Your task to perform on an android device: snooze an email in the gmail app Image 0: 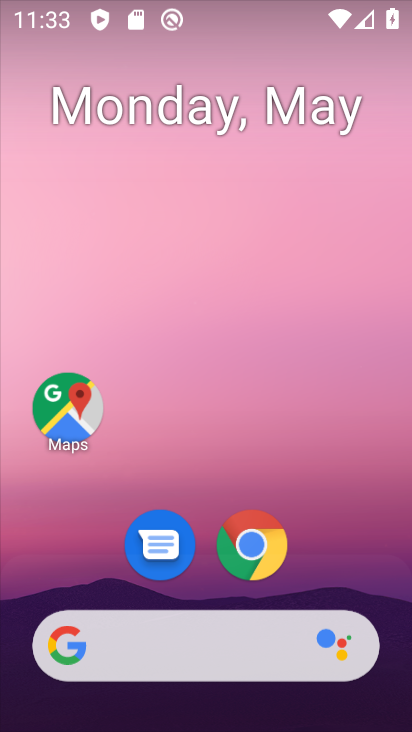
Step 0: drag from (200, 590) to (288, 191)
Your task to perform on an android device: snooze an email in the gmail app Image 1: 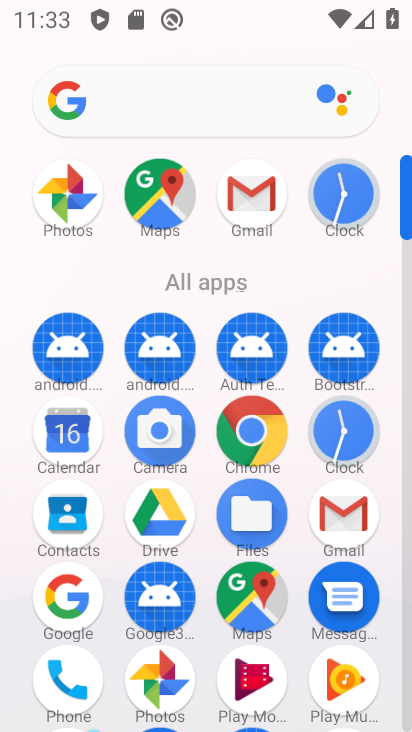
Step 1: click (276, 211)
Your task to perform on an android device: snooze an email in the gmail app Image 2: 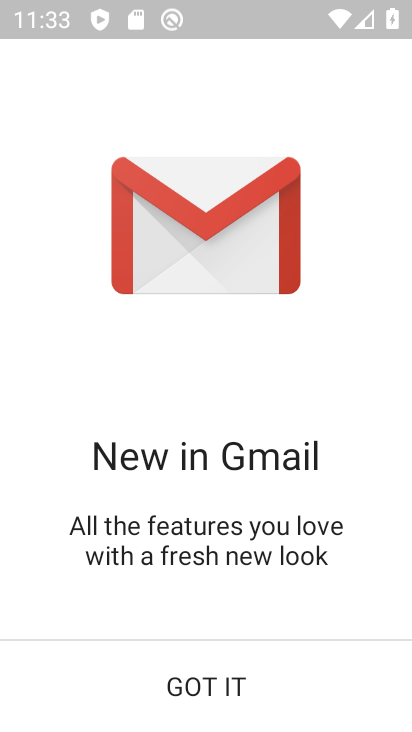
Step 2: click (269, 201)
Your task to perform on an android device: snooze an email in the gmail app Image 3: 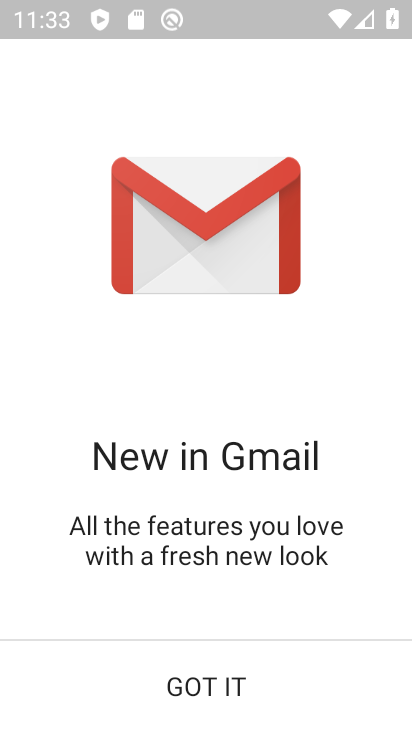
Step 3: click (209, 682)
Your task to perform on an android device: snooze an email in the gmail app Image 4: 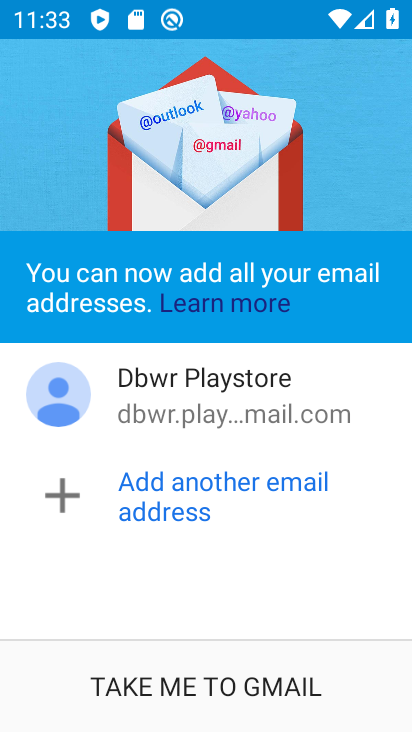
Step 4: click (209, 682)
Your task to perform on an android device: snooze an email in the gmail app Image 5: 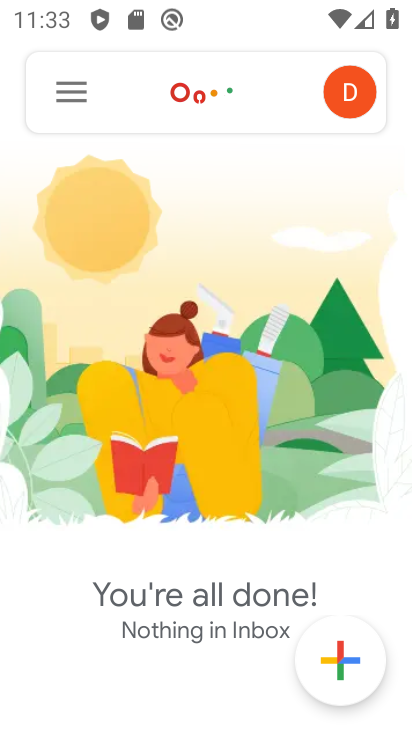
Step 5: click (76, 91)
Your task to perform on an android device: snooze an email in the gmail app Image 6: 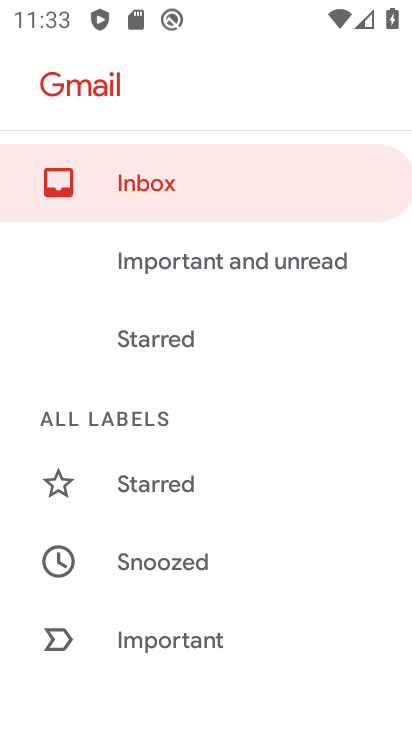
Step 6: click (160, 580)
Your task to perform on an android device: snooze an email in the gmail app Image 7: 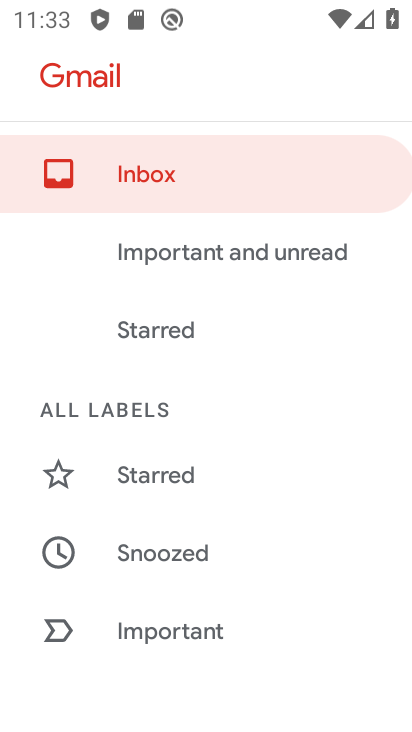
Step 7: click (167, 555)
Your task to perform on an android device: snooze an email in the gmail app Image 8: 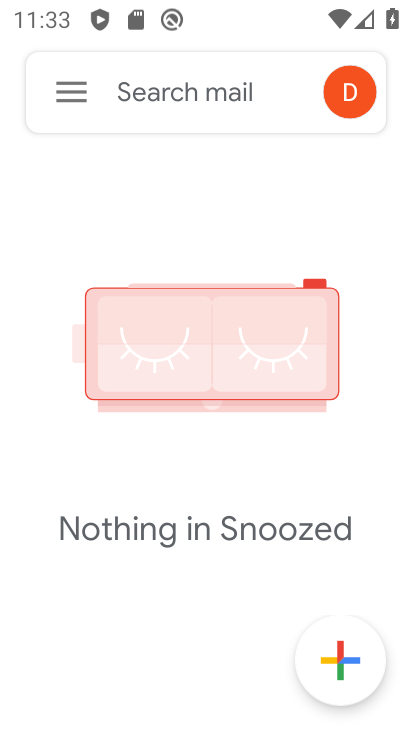
Step 8: task complete